Your task to perform on an android device: Open Chrome and go to the settings page Image 0: 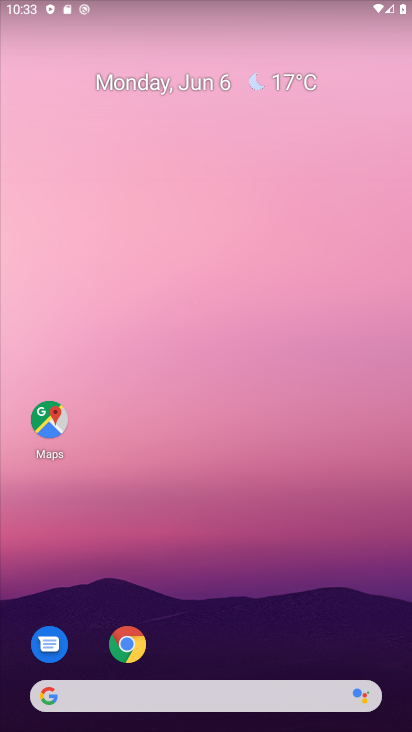
Step 0: click (116, 657)
Your task to perform on an android device: Open Chrome and go to the settings page Image 1: 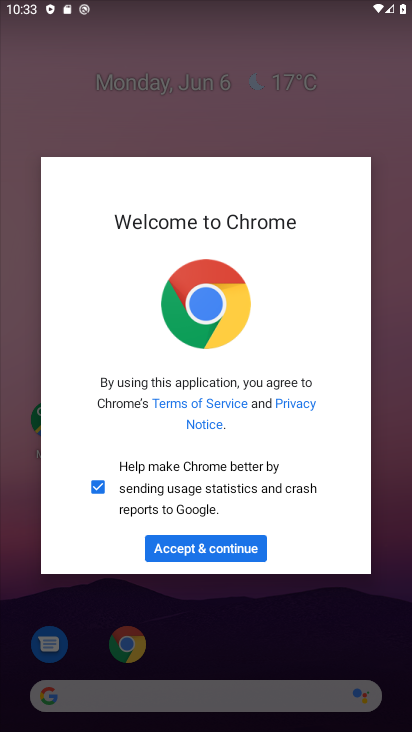
Step 1: click (218, 555)
Your task to perform on an android device: Open Chrome and go to the settings page Image 2: 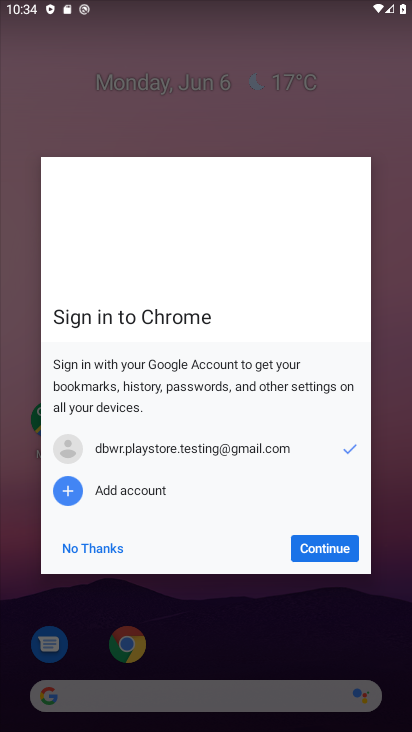
Step 2: click (331, 538)
Your task to perform on an android device: Open Chrome and go to the settings page Image 3: 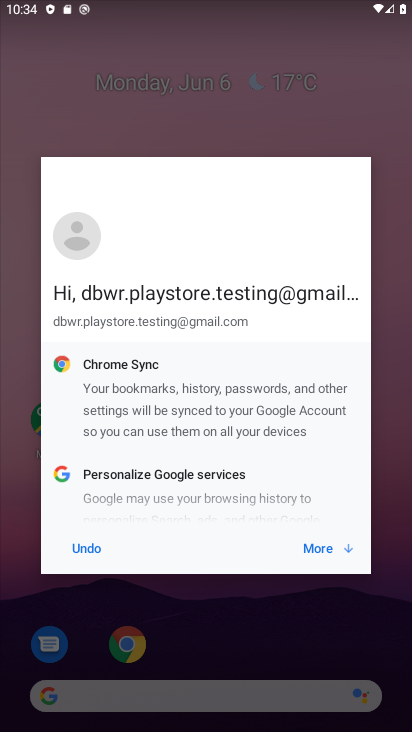
Step 3: click (331, 538)
Your task to perform on an android device: Open Chrome and go to the settings page Image 4: 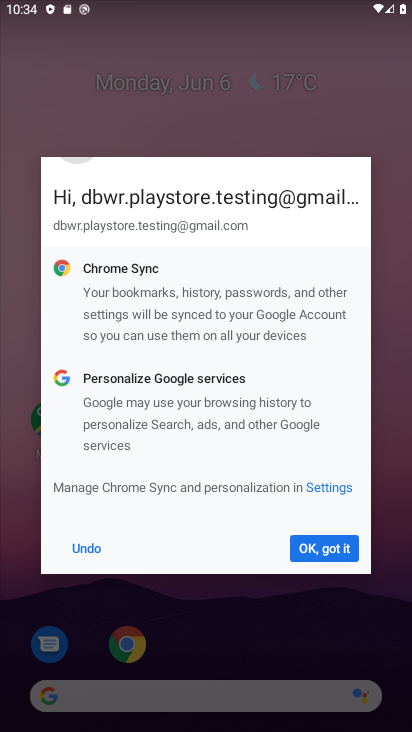
Step 4: click (331, 538)
Your task to perform on an android device: Open Chrome and go to the settings page Image 5: 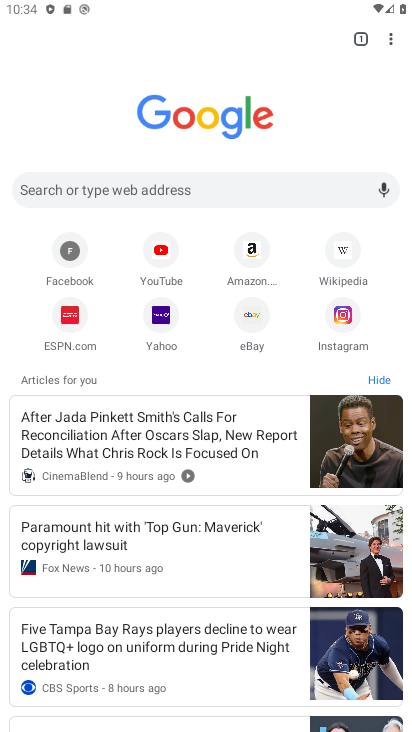
Step 5: task complete